Your task to perform on an android device: delete location history Image 0: 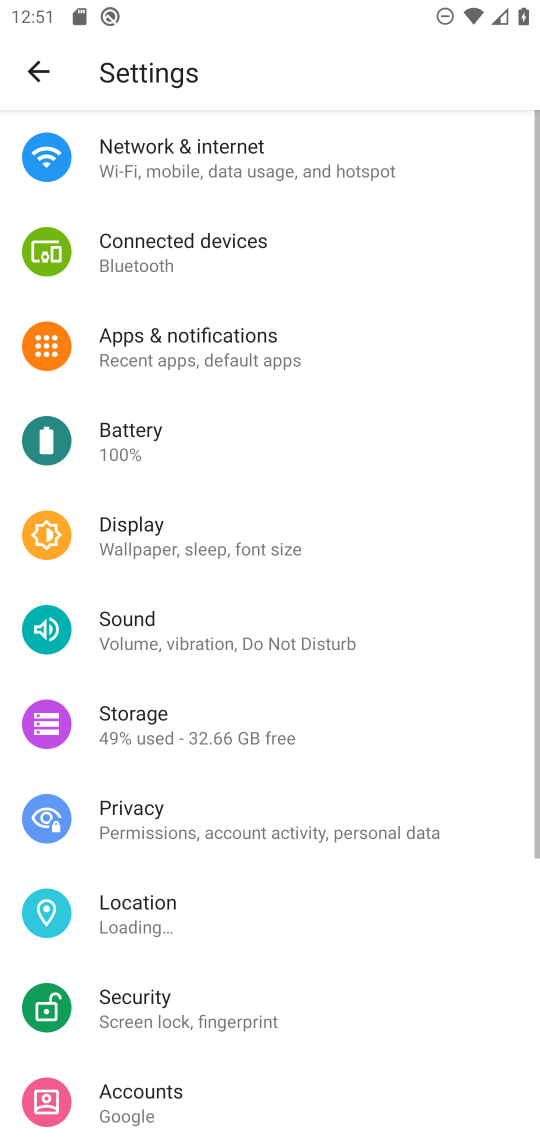
Step 0: press back button
Your task to perform on an android device: delete location history Image 1: 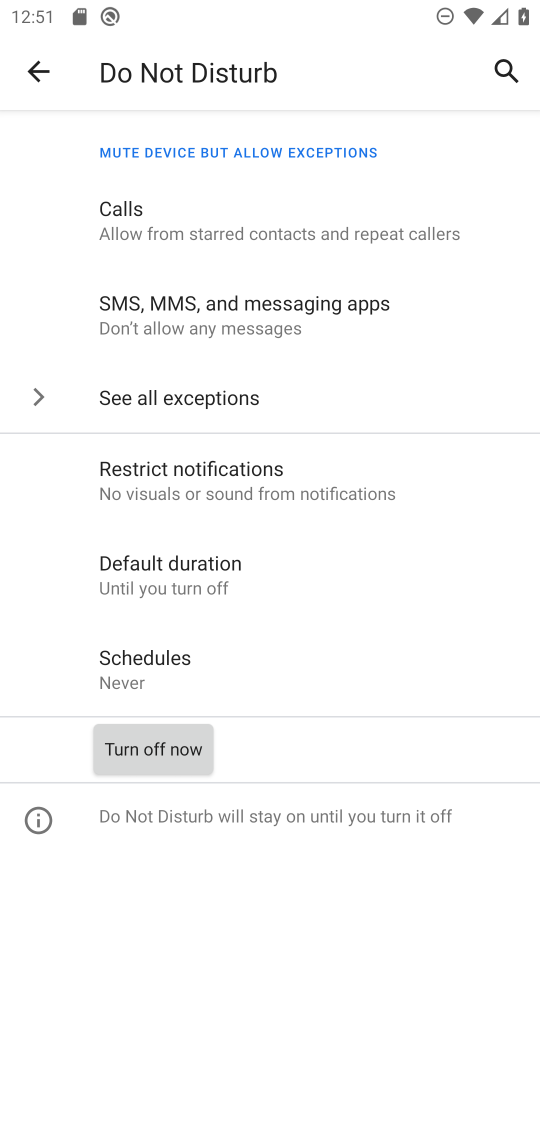
Step 1: press home button
Your task to perform on an android device: delete location history Image 2: 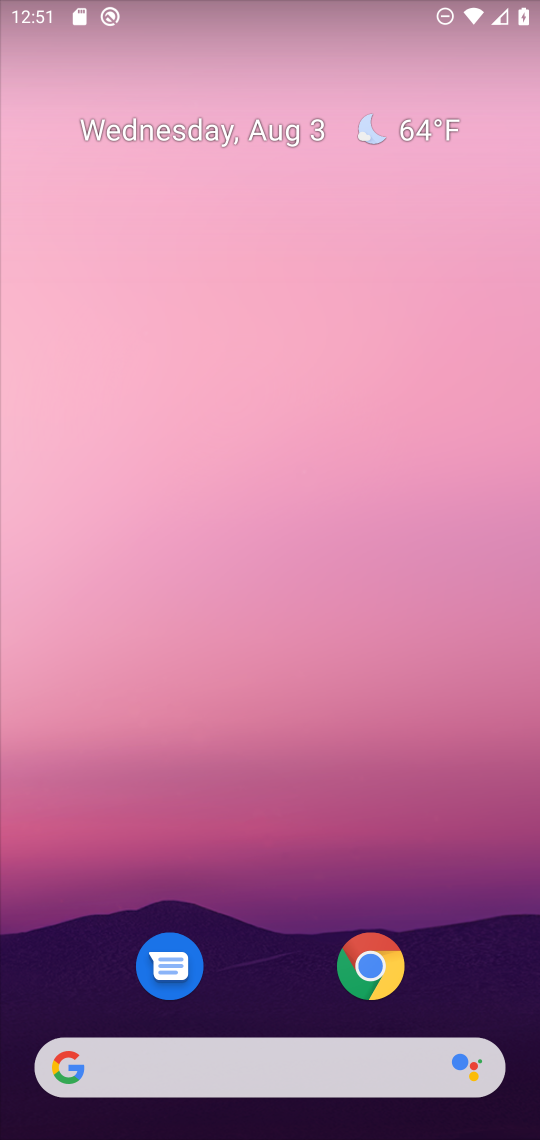
Step 2: drag from (243, 944) to (253, 383)
Your task to perform on an android device: delete location history Image 3: 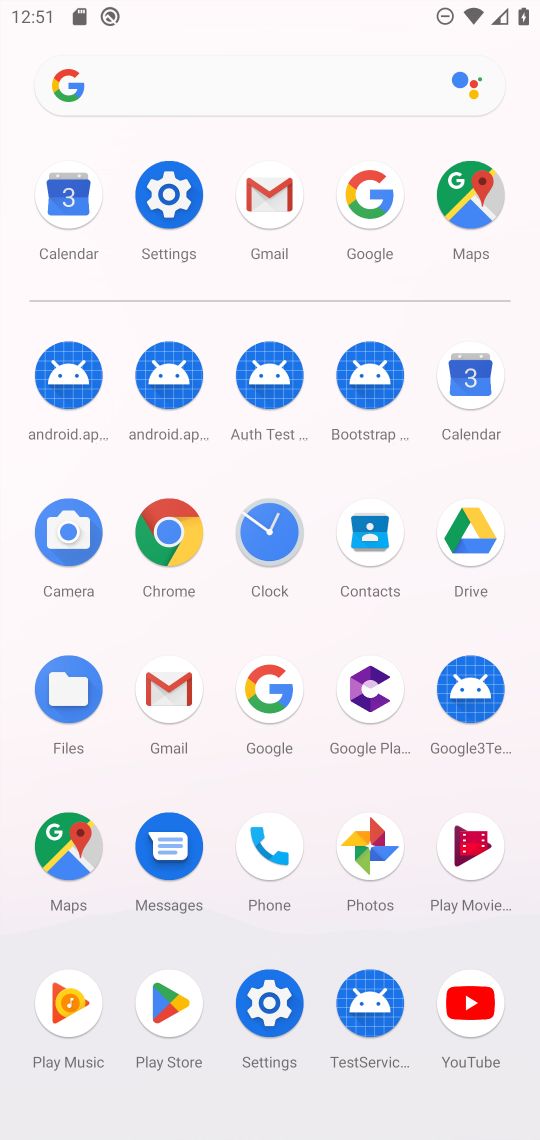
Step 3: click (447, 216)
Your task to perform on an android device: delete location history Image 4: 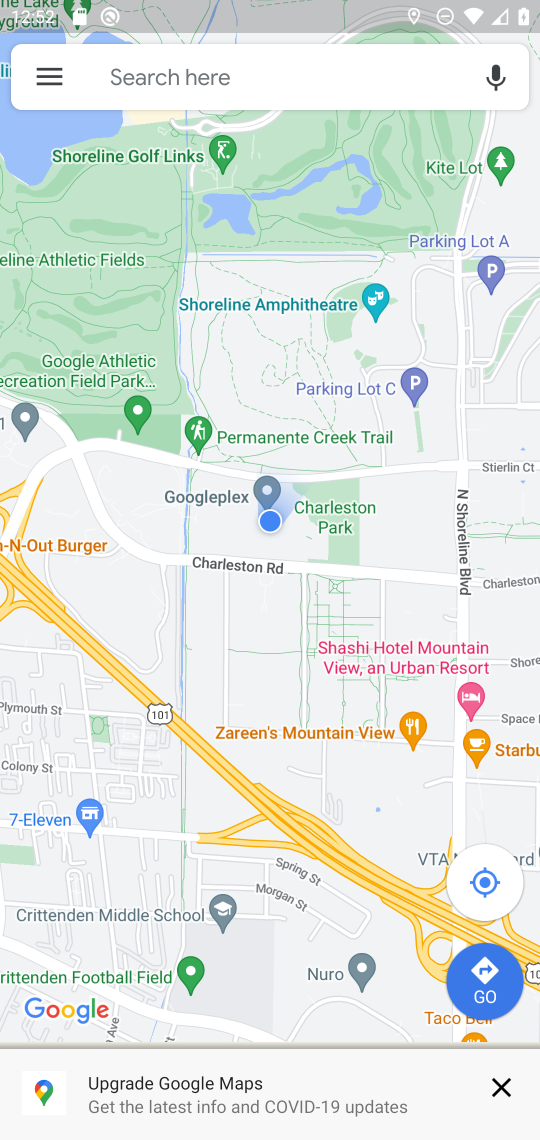
Step 4: click (25, 87)
Your task to perform on an android device: delete location history Image 5: 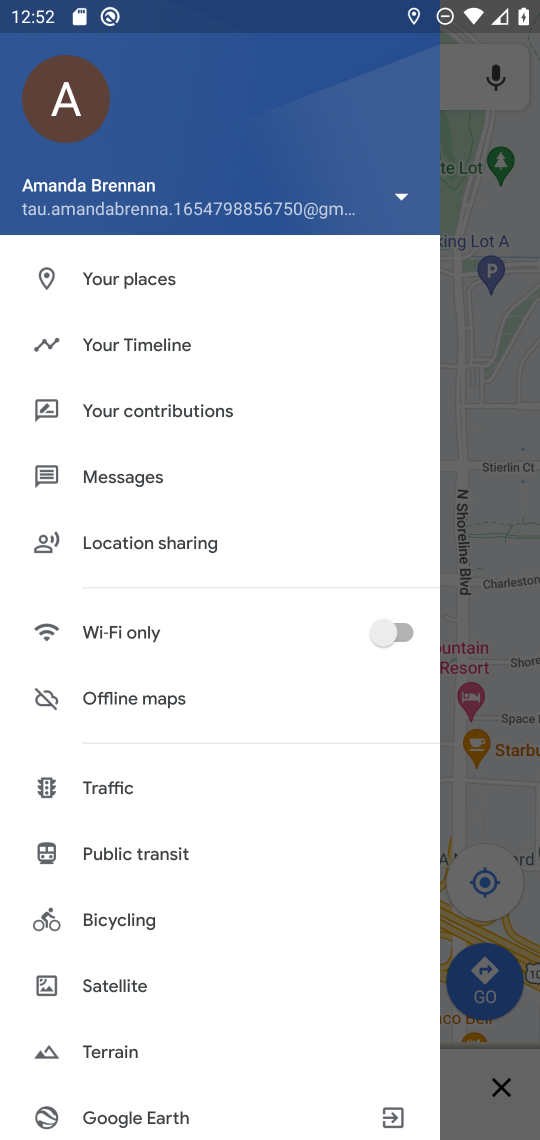
Step 5: drag from (134, 1066) to (274, 706)
Your task to perform on an android device: delete location history Image 6: 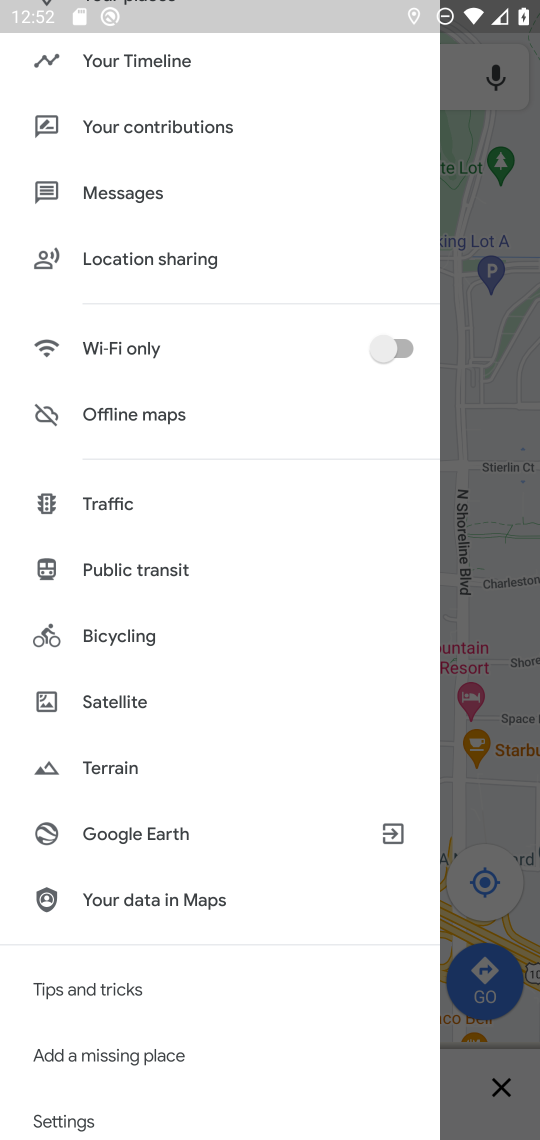
Step 6: click (167, 67)
Your task to perform on an android device: delete location history Image 7: 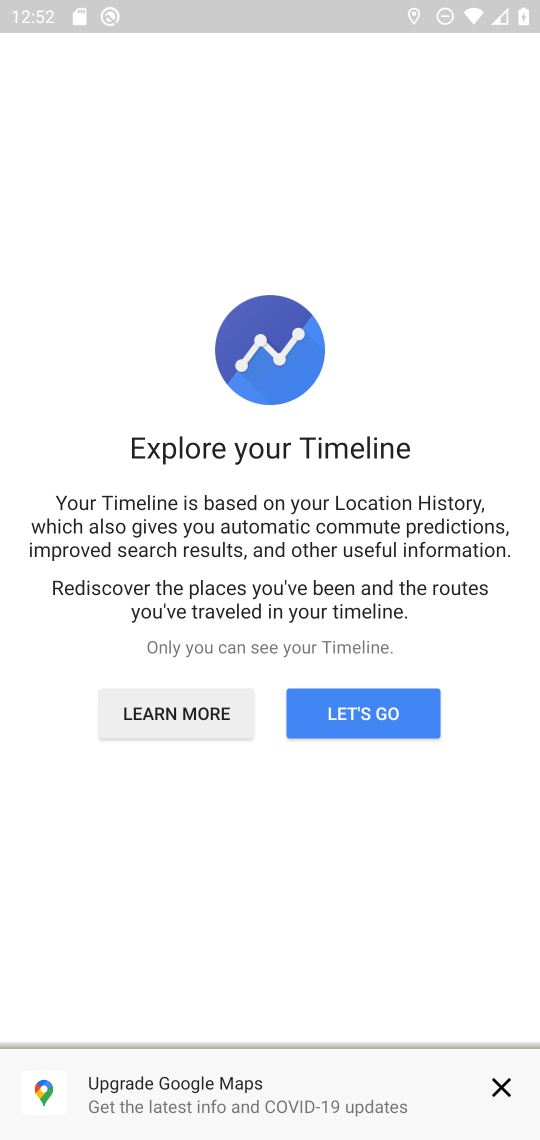
Step 7: click (376, 702)
Your task to perform on an android device: delete location history Image 8: 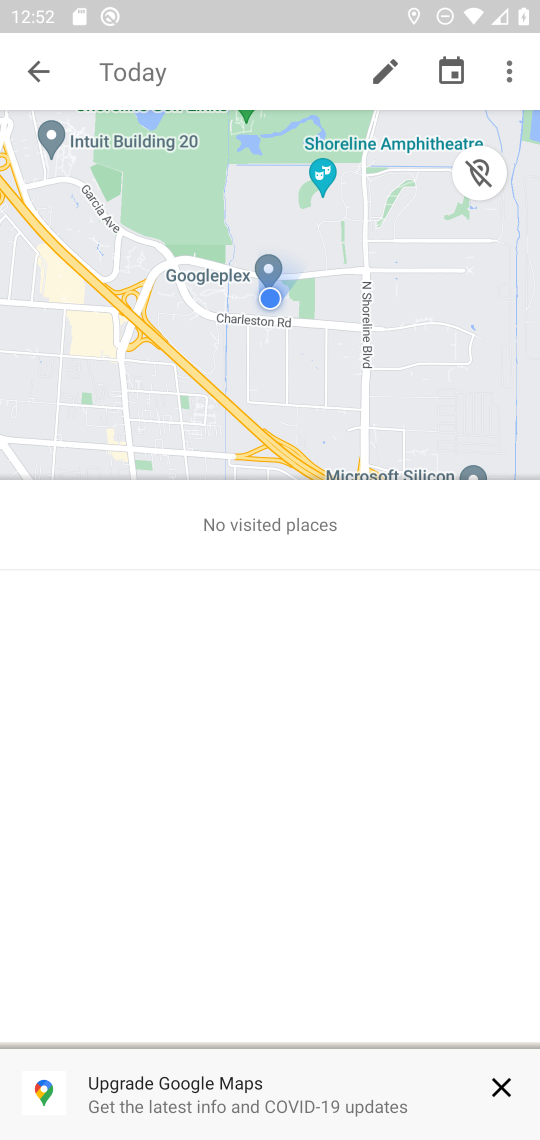
Step 8: click (496, 65)
Your task to perform on an android device: delete location history Image 9: 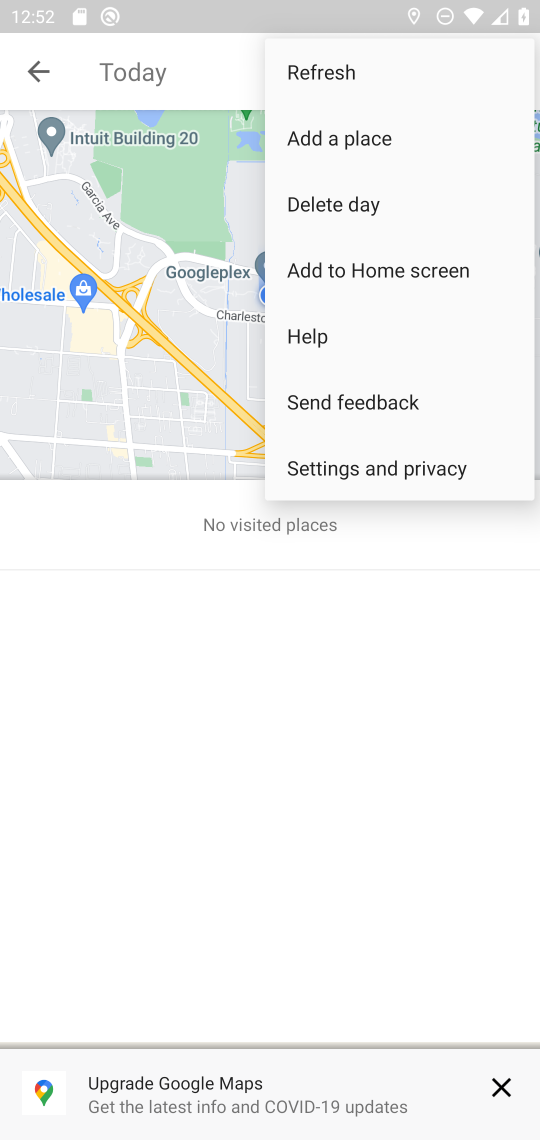
Step 9: click (384, 467)
Your task to perform on an android device: delete location history Image 10: 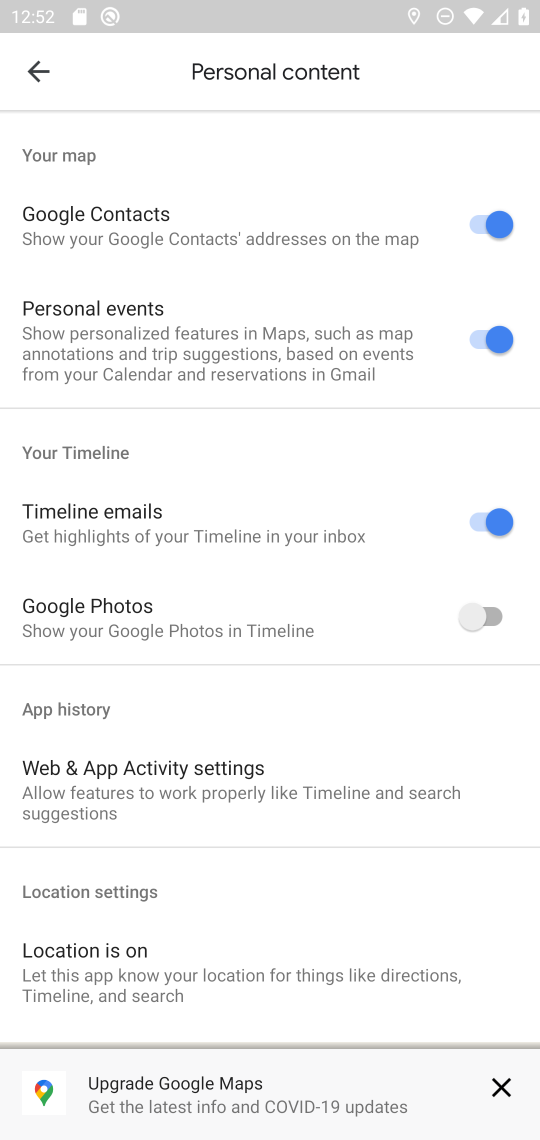
Step 10: drag from (182, 924) to (232, 404)
Your task to perform on an android device: delete location history Image 11: 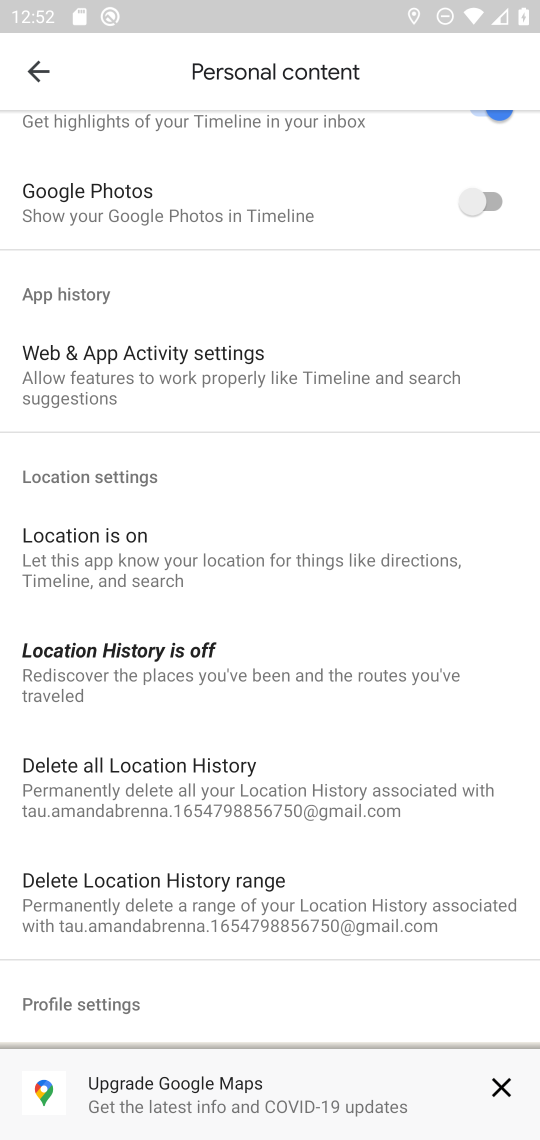
Step 11: click (228, 798)
Your task to perform on an android device: delete location history Image 12: 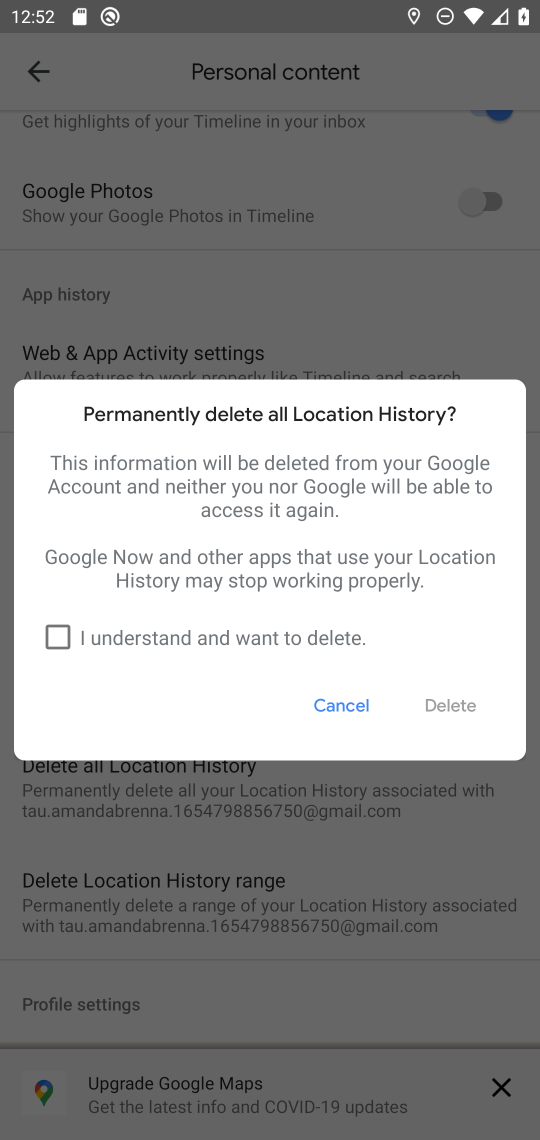
Step 12: click (257, 647)
Your task to perform on an android device: delete location history Image 13: 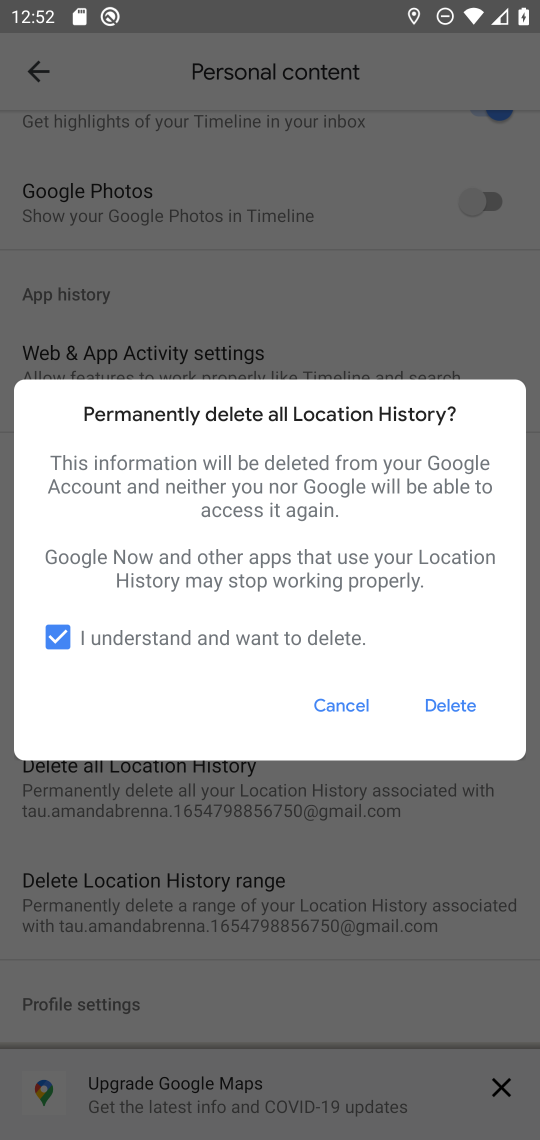
Step 13: click (460, 710)
Your task to perform on an android device: delete location history Image 14: 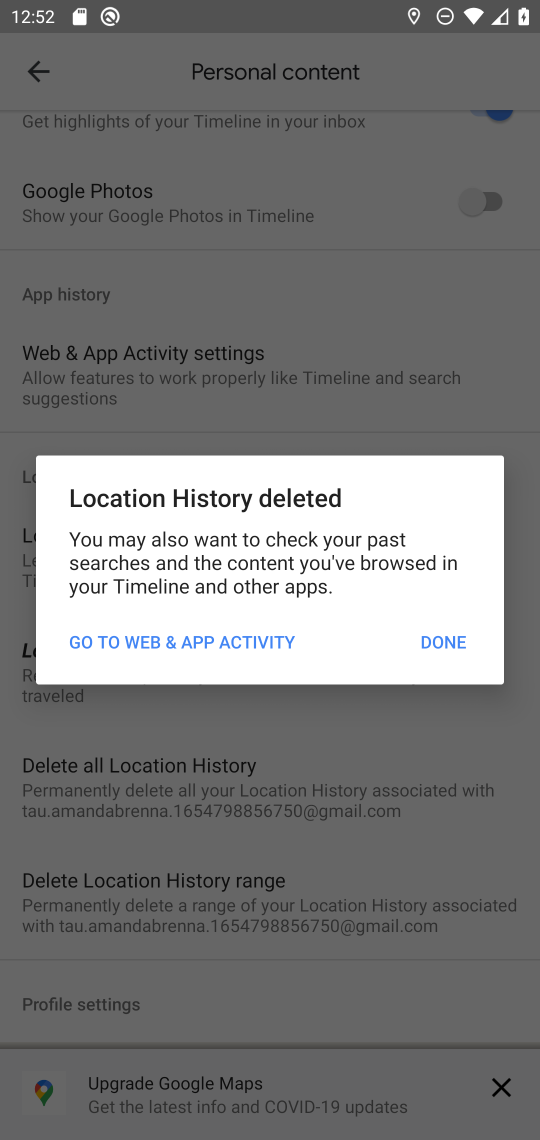
Step 14: click (439, 634)
Your task to perform on an android device: delete location history Image 15: 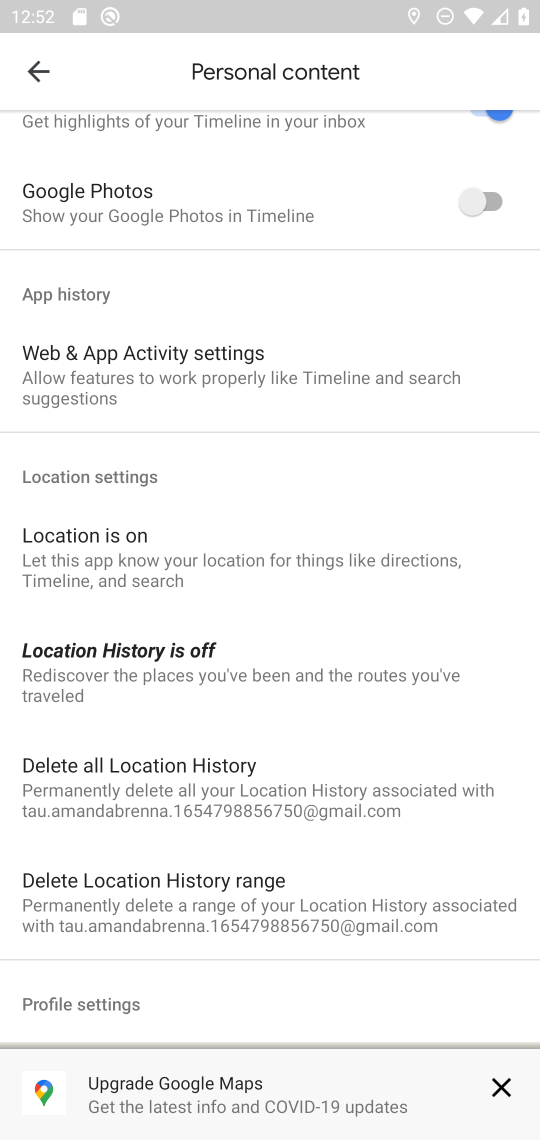
Step 15: task complete